Your task to perform on an android device: install app "The Home Depot" Image 0: 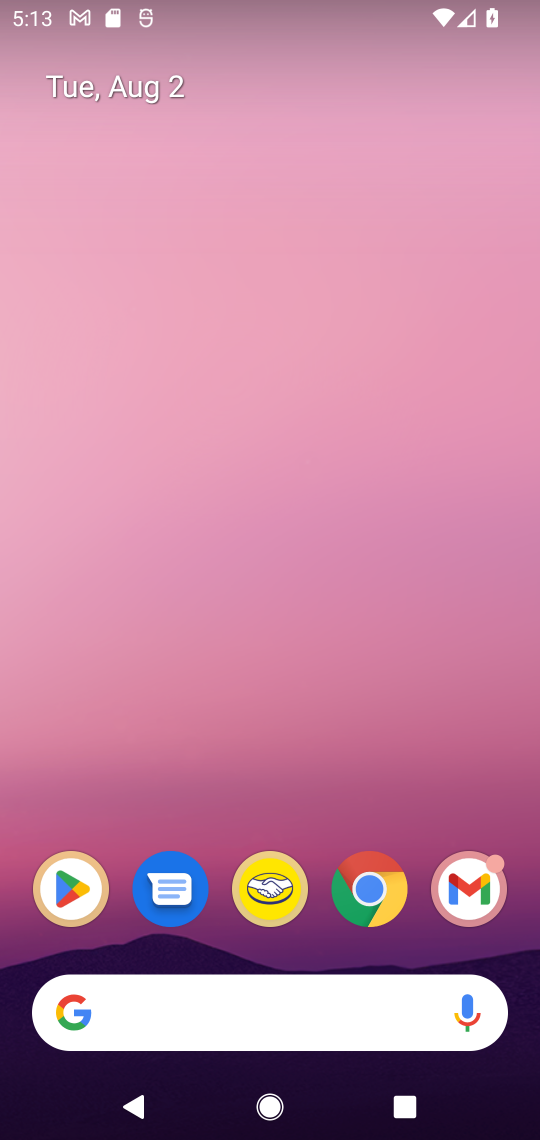
Step 0: drag from (375, 694) to (326, 76)
Your task to perform on an android device: install app "The Home Depot" Image 1: 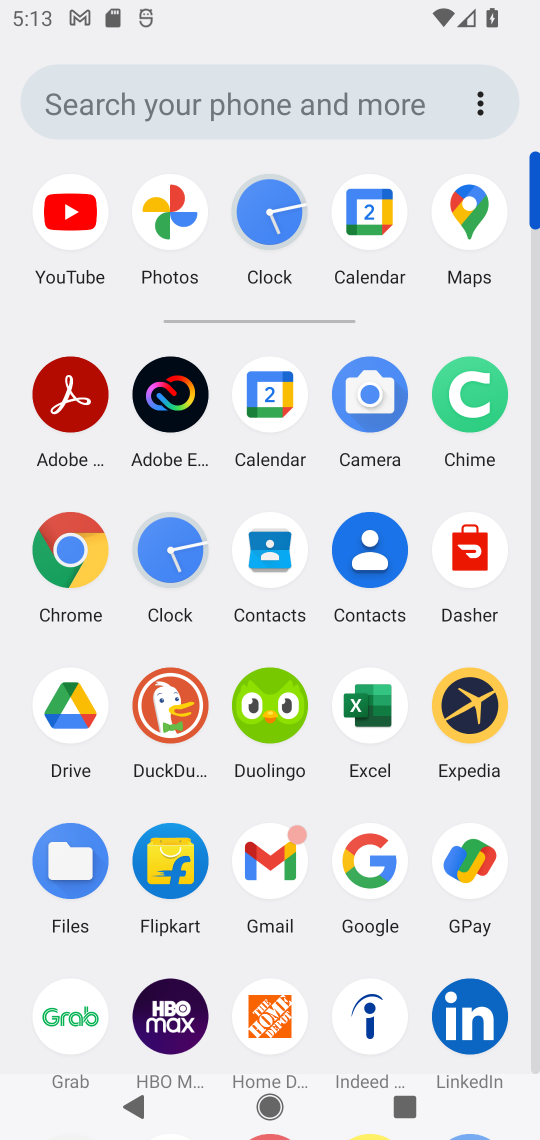
Step 1: drag from (504, 960) to (106, 333)
Your task to perform on an android device: install app "The Home Depot" Image 2: 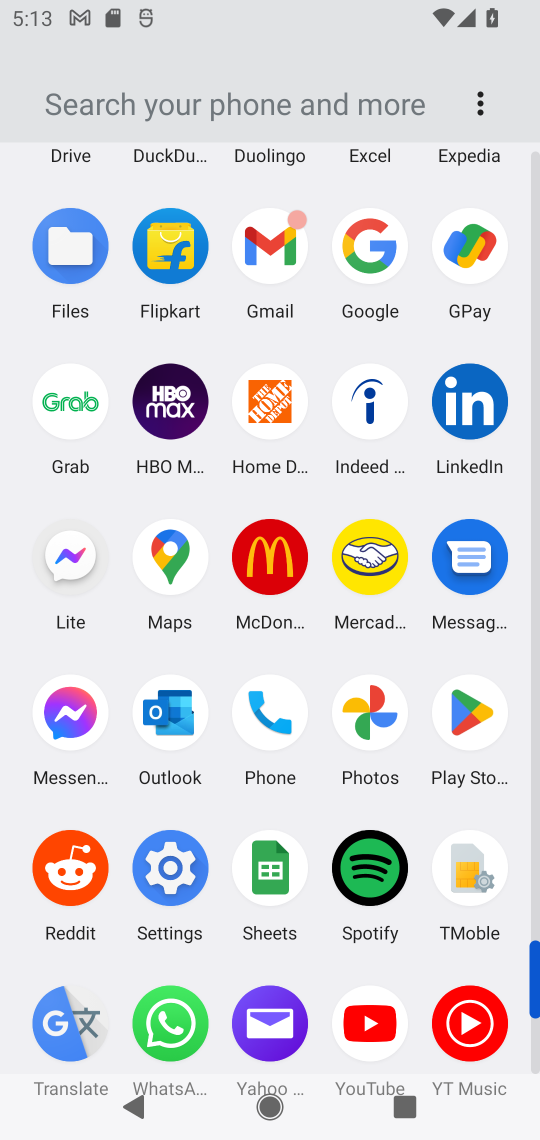
Step 2: click (472, 718)
Your task to perform on an android device: install app "The Home Depot" Image 3: 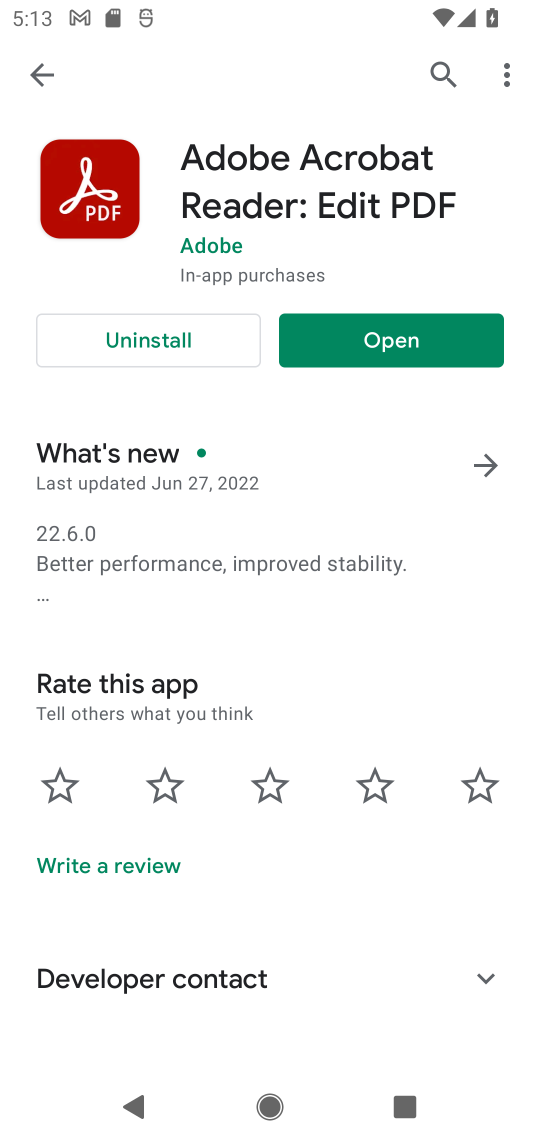
Step 3: click (428, 69)
Your task to perform on an android device: install app "The Home Depot" Image 4: 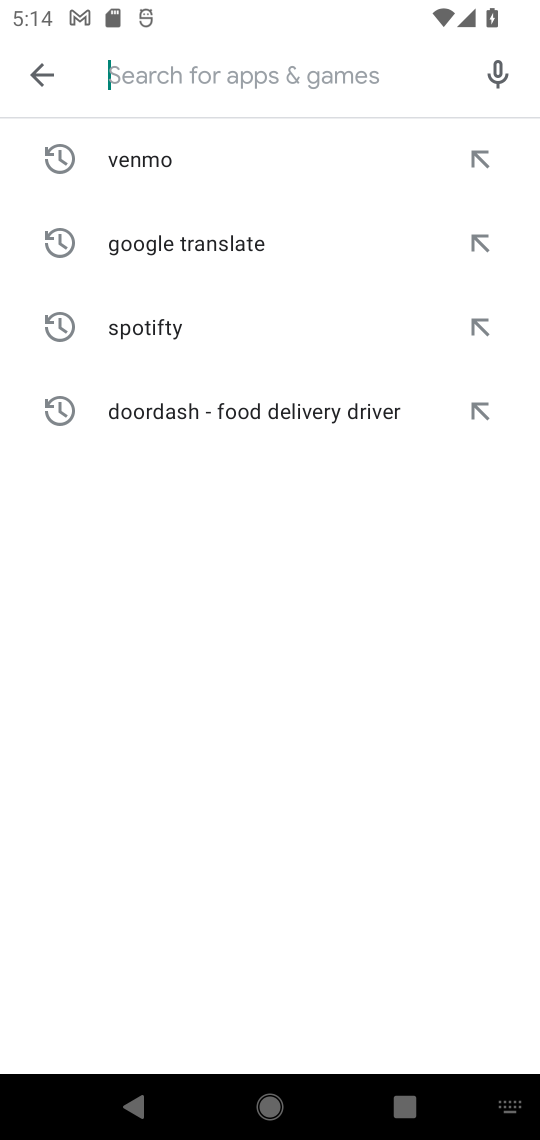
Step 4: type "the home depot"
Your task to perform on an android device: install app "The Home Depot" Image 5: 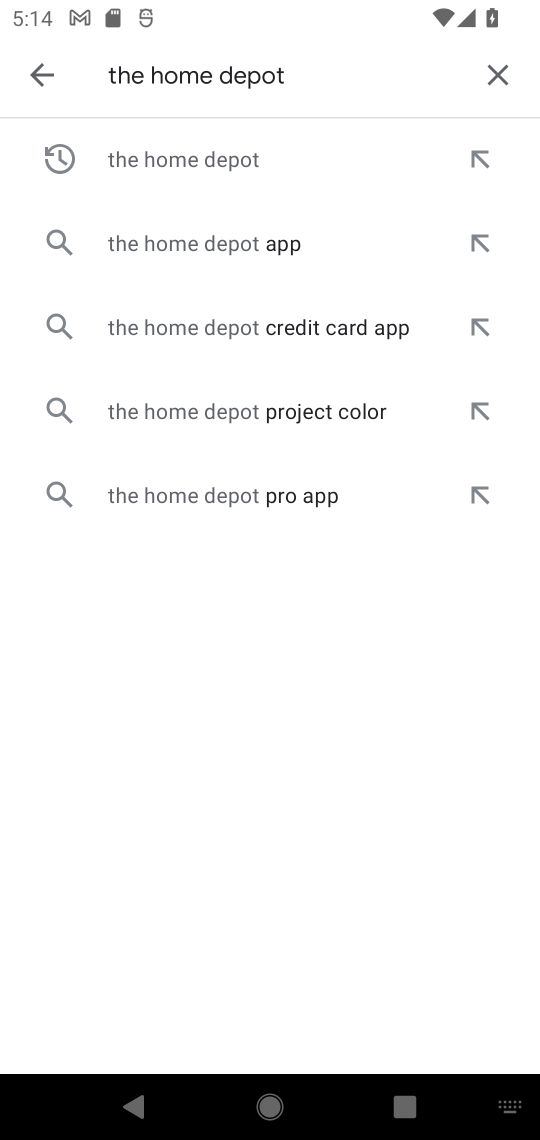
Step 5: click (227, 156)
Your task to perform on an android device: install app "The Home Depot" Image 6: 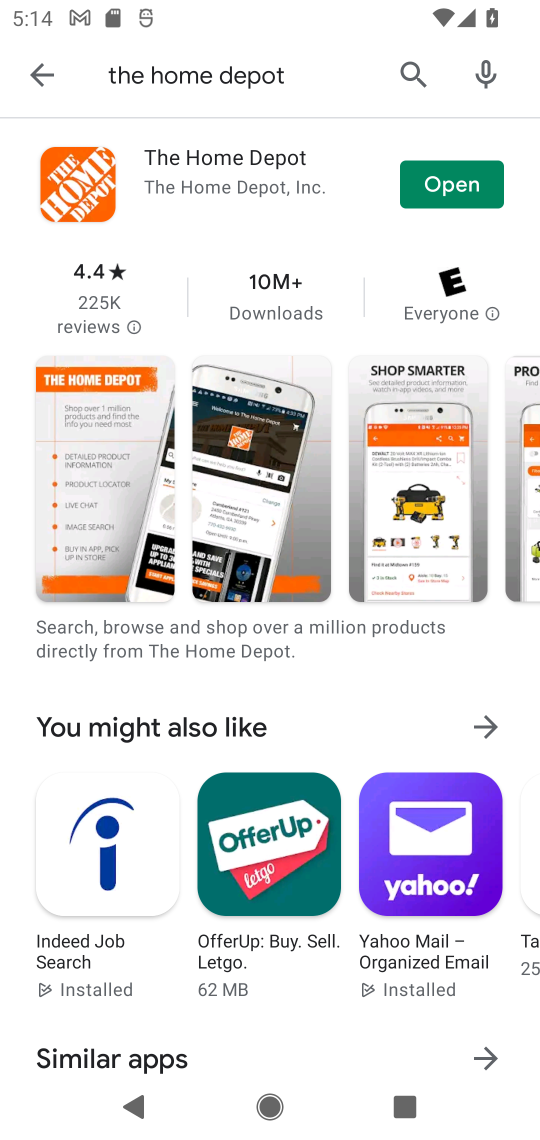
Step 6: task complete